Your task to perform on an android device: toggle notifications settings in the gmail app Image 0: 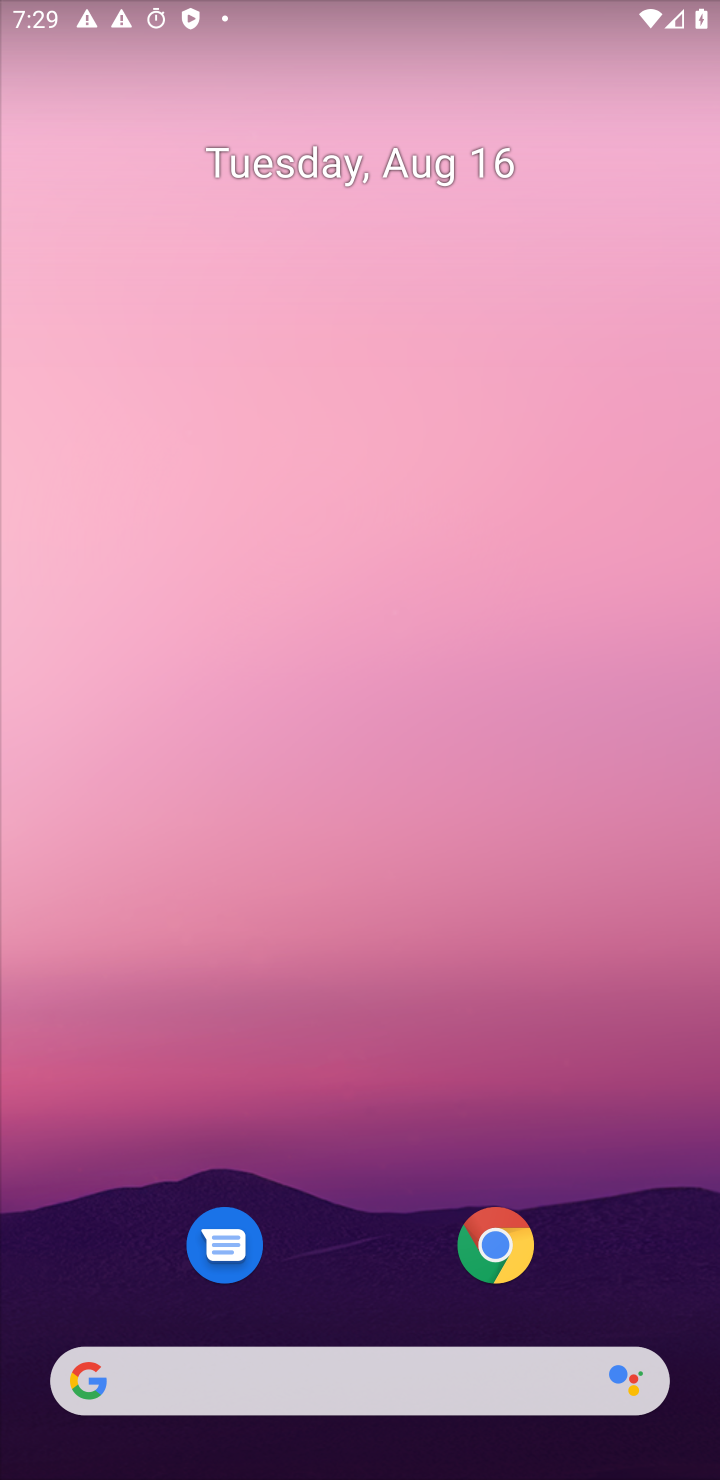
Step 0: press home button
Your task to perform on an android device: toggle notifications settings in the gmail app Image 1: 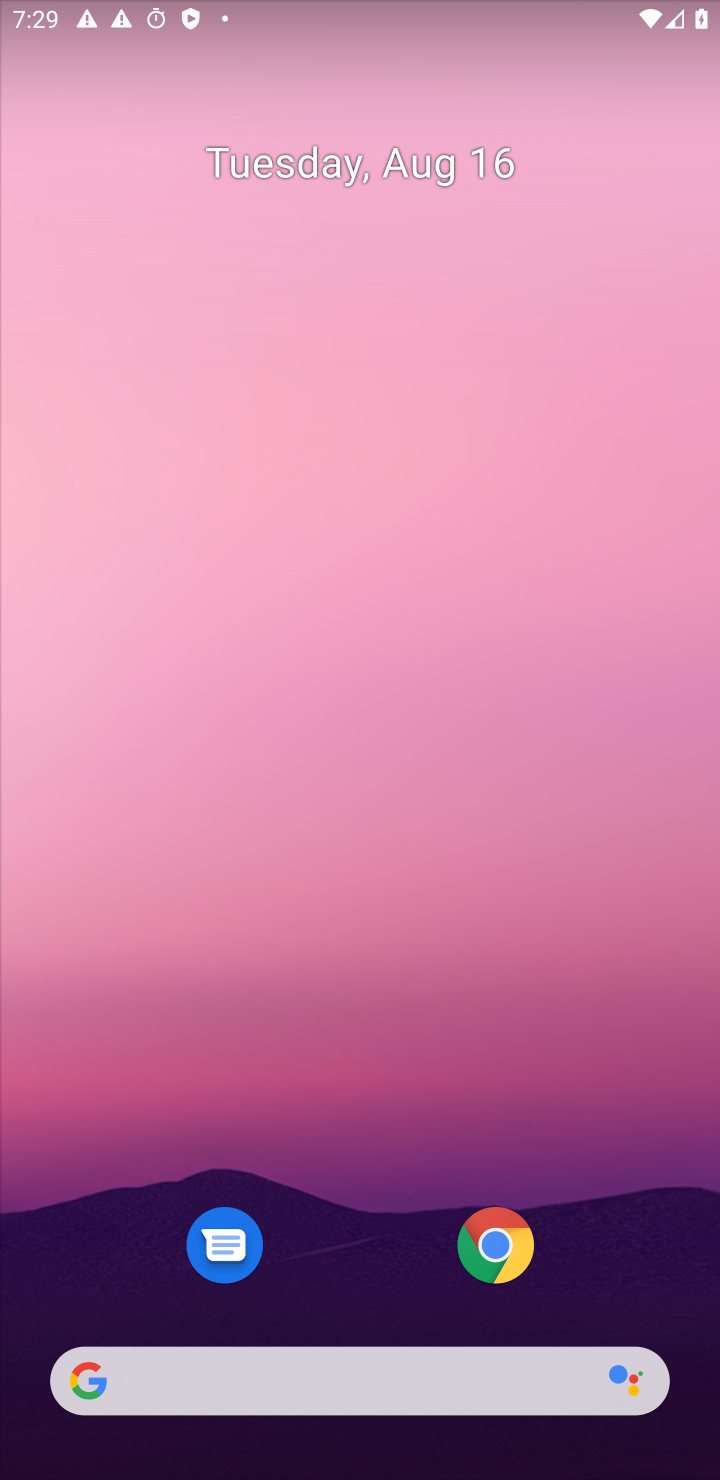
Step 1: drag from (406, 1052) to (468, 241)
Your task to perform on an android device: toggle notifications settings in the gmail app Image 2: 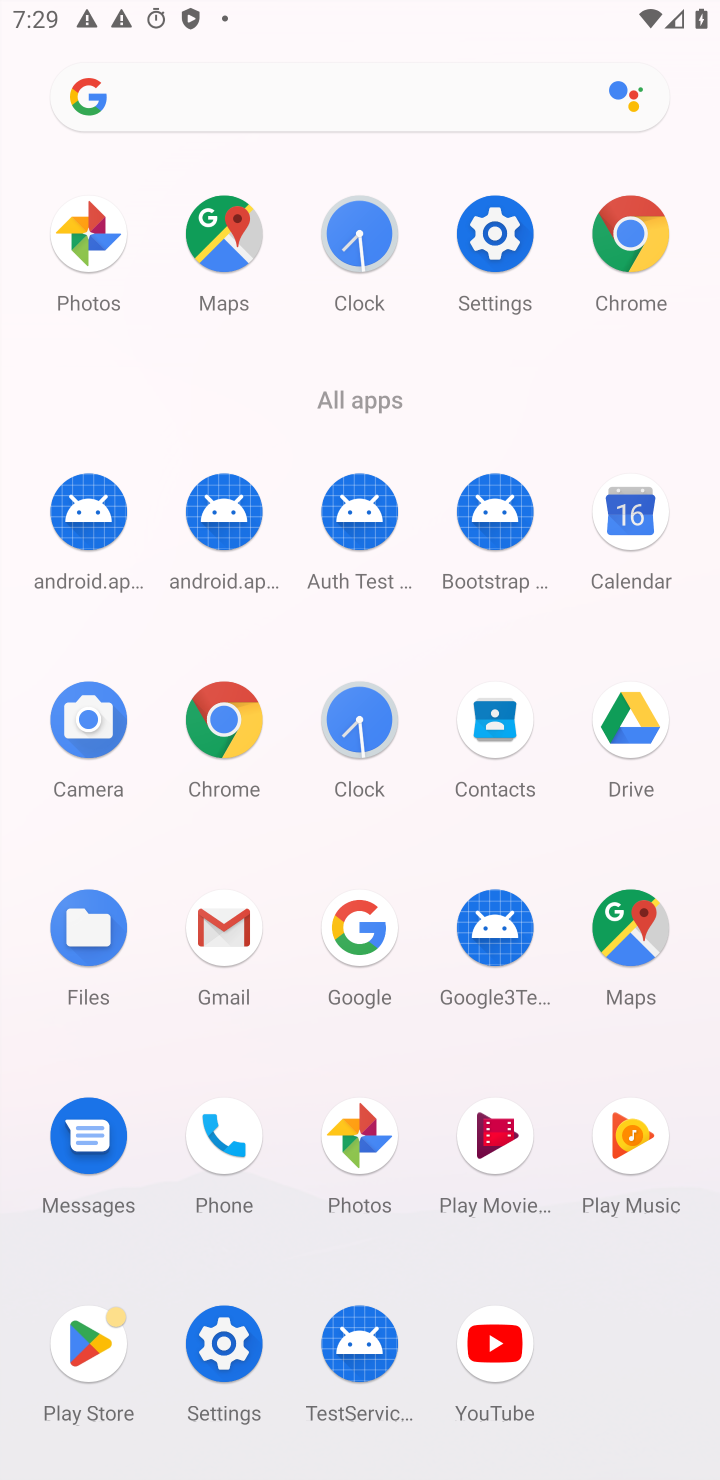
Step 2: click (223, 939)
Your task to perform on an android device: toggle notifications settings in the gmail app Image 3: 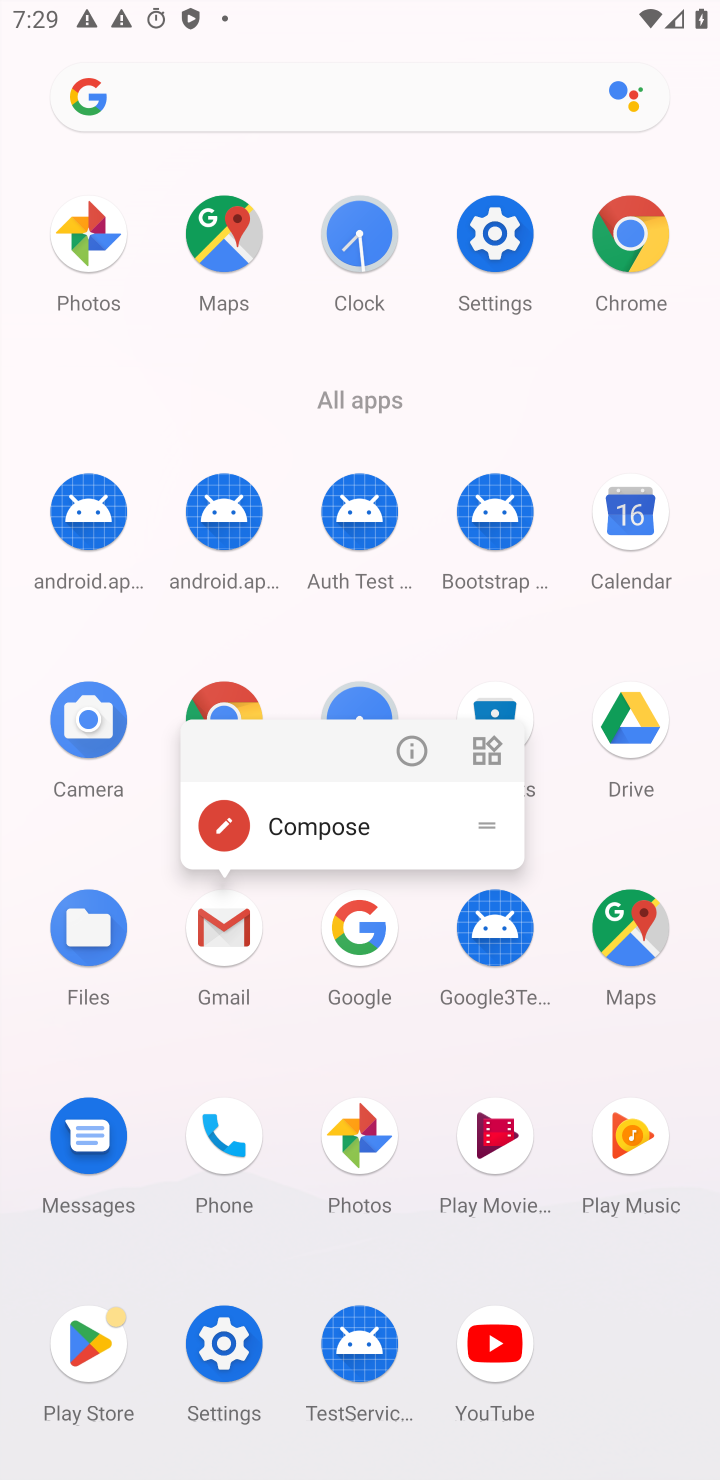
Step 3: click (222, 920)
Your task to perform on an android device: toggle notifications settings in the gmail app Image 4: 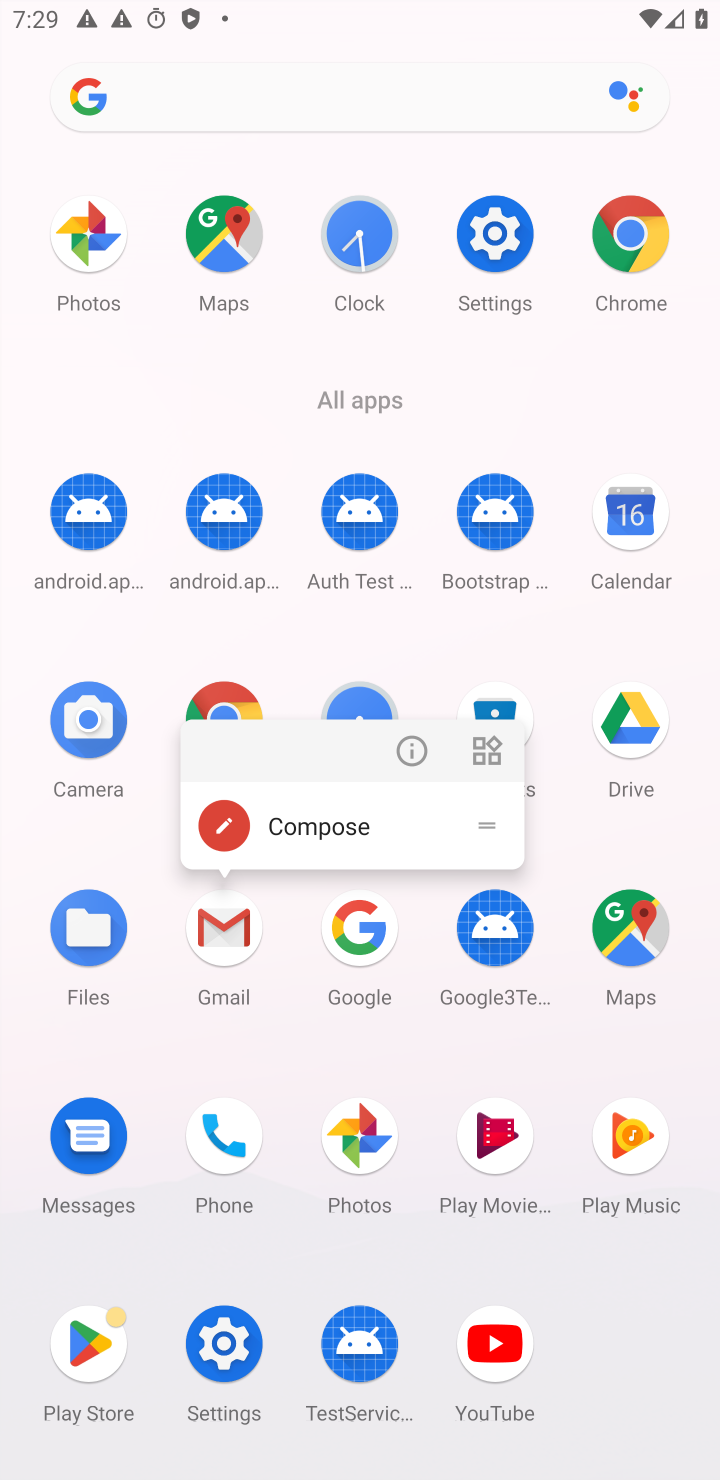
Step 4: click (228, 925)
Your task to perform on an android device: toggle notifications settings in the gmail app Image 5: 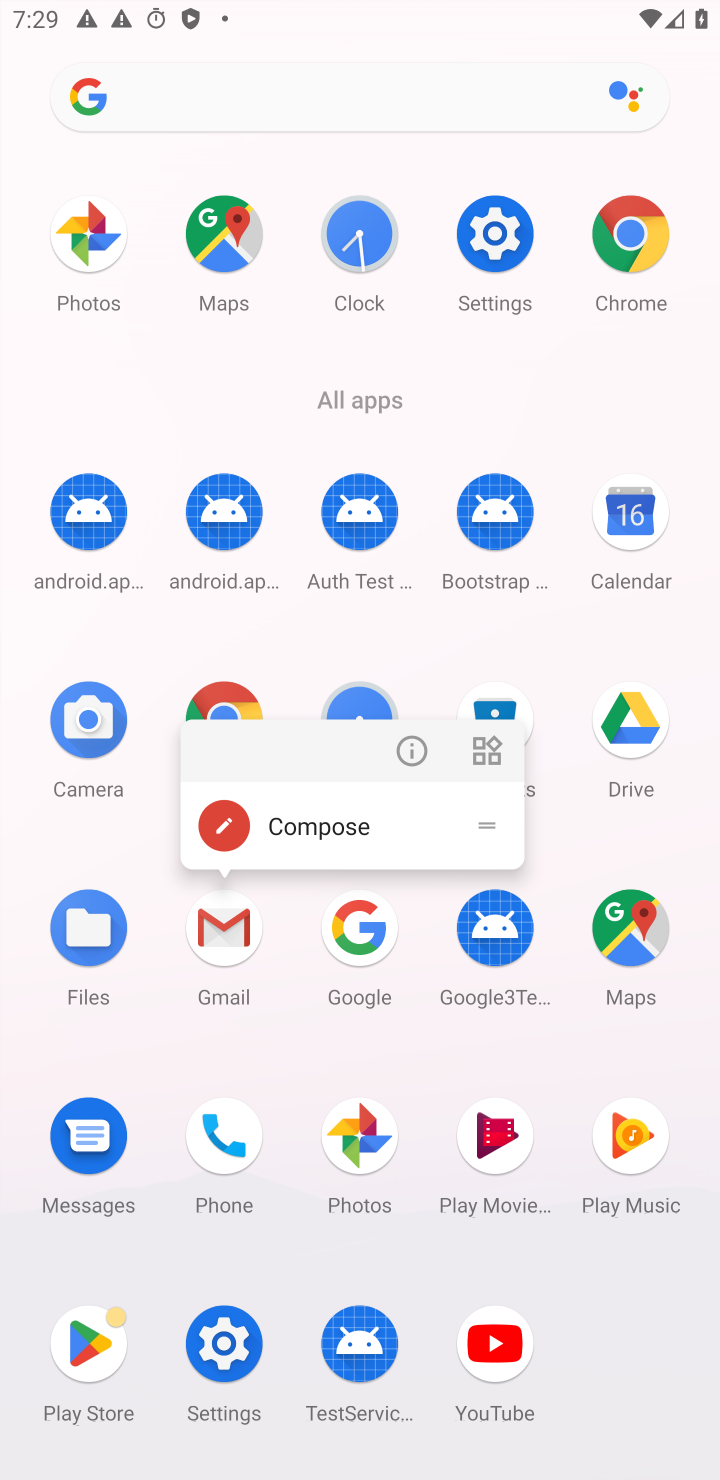
Step 5: click (218, 938)
Your task to perform on an android device: toggle notifications settings in the gmail app Image 6: 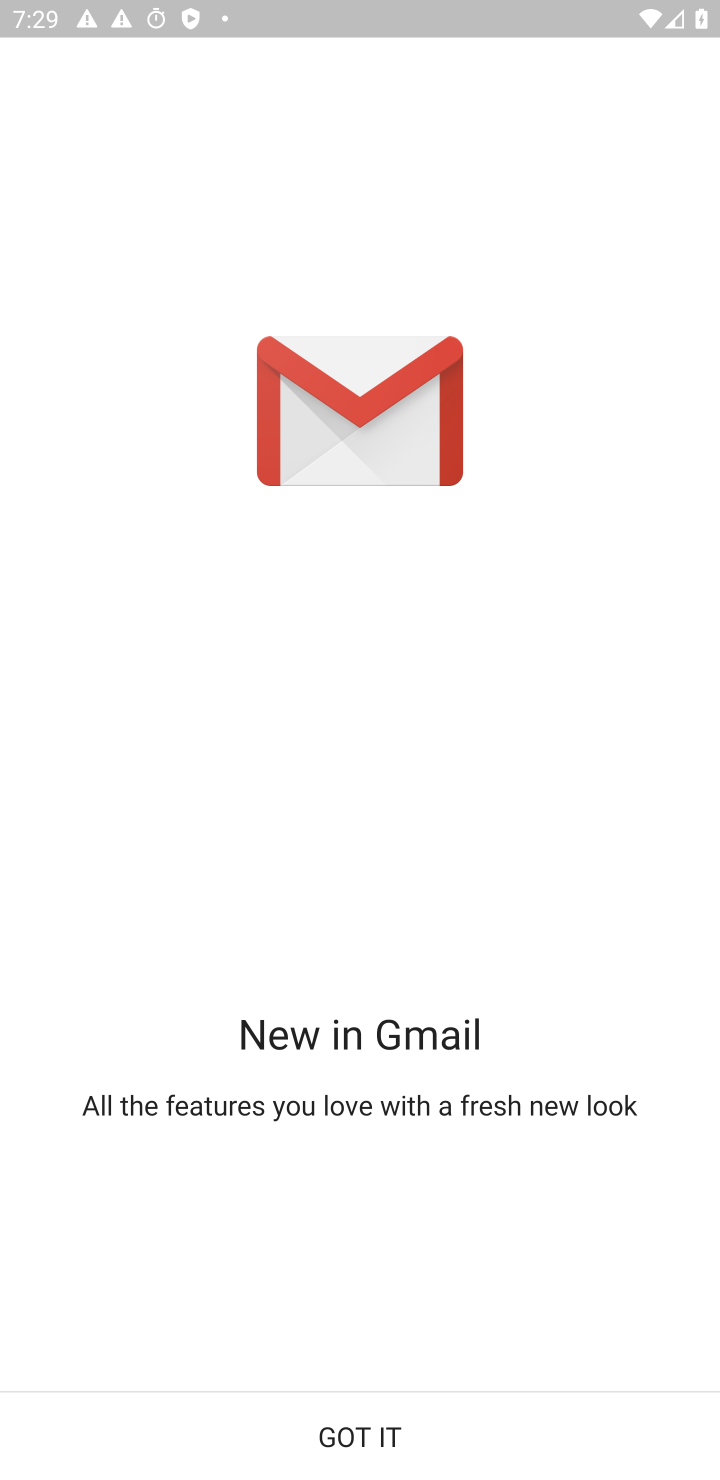
Step 6: click (356, 1441)
Your task to perform on an android device: toggle notifications settings in the gmail app Image 7: 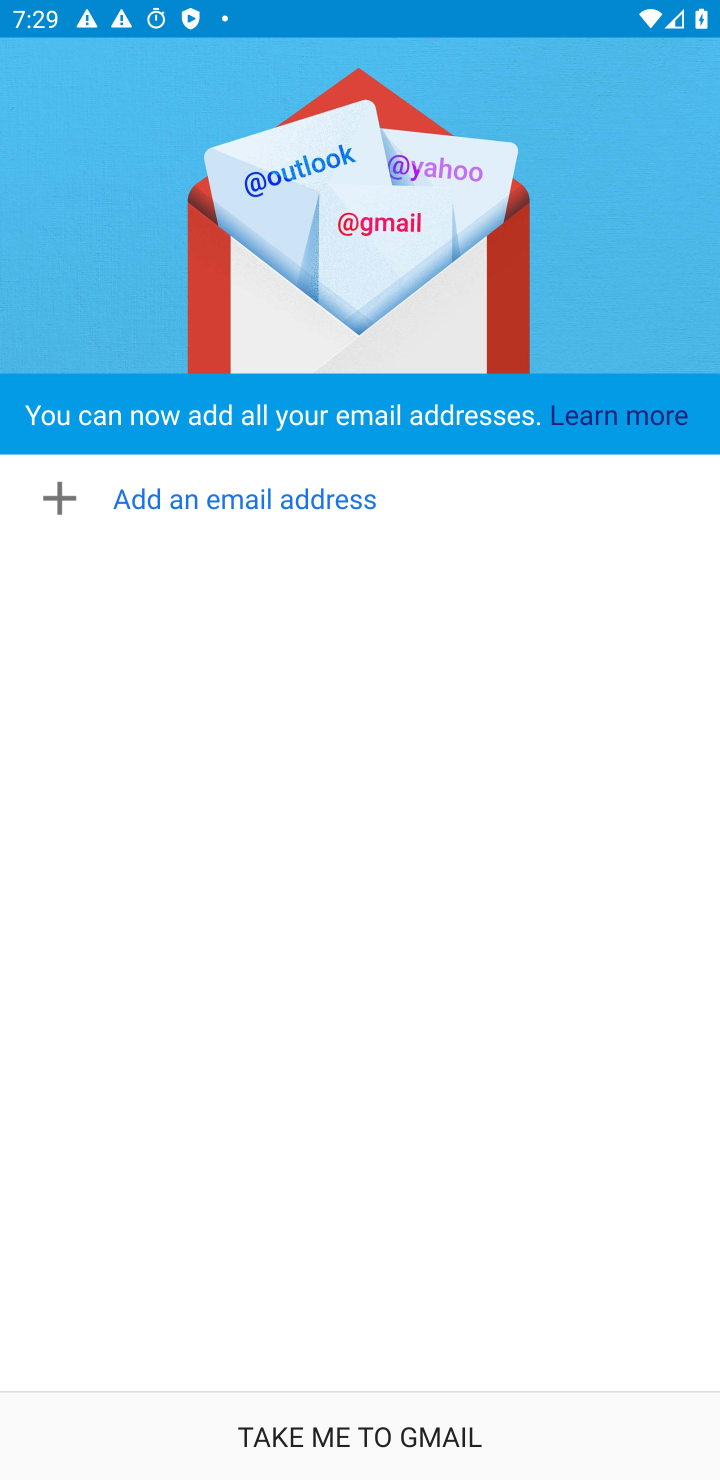
Step 7: click (368, 1435)
Your task to perform on an android device: toggle notifications settings in the gmail app Image 8: 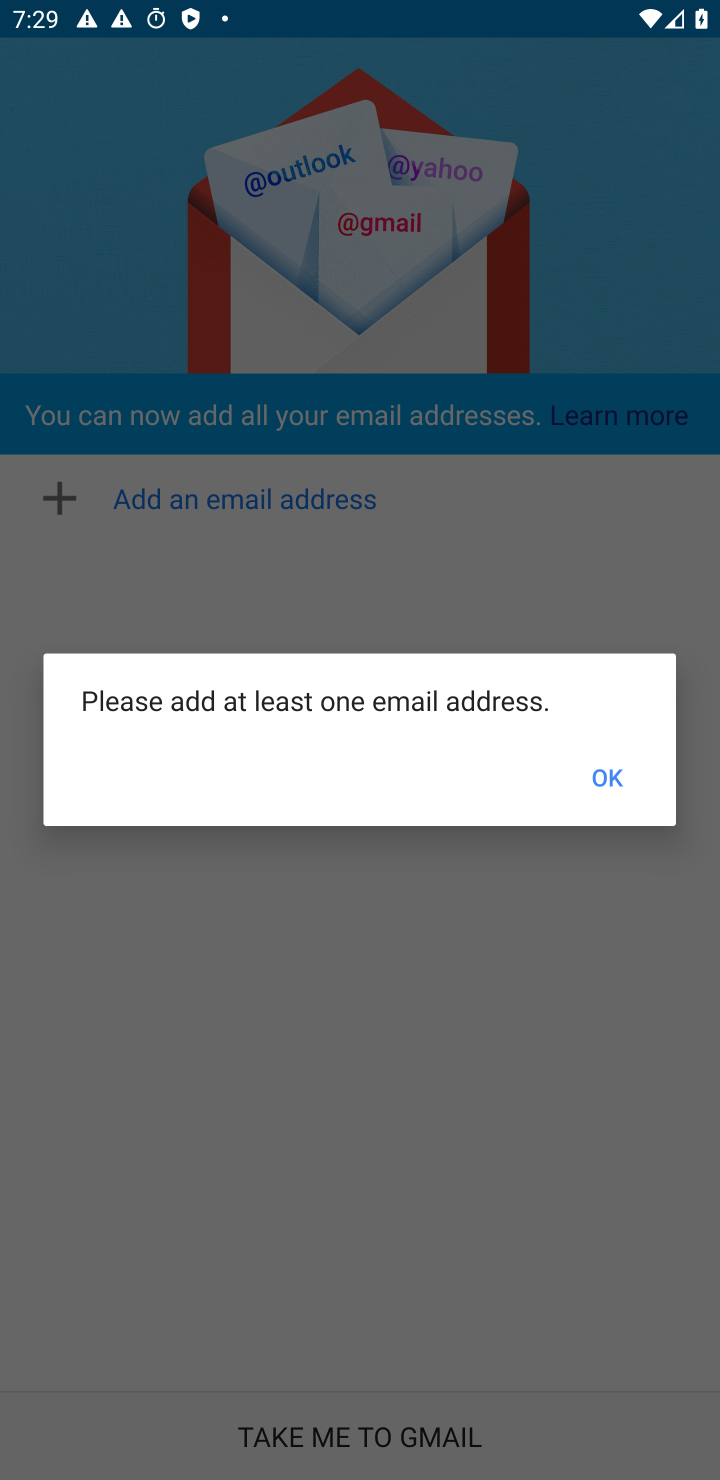
Step 8: task complete